Your task to perform on an android device: Turn off the flashlight Image 0: 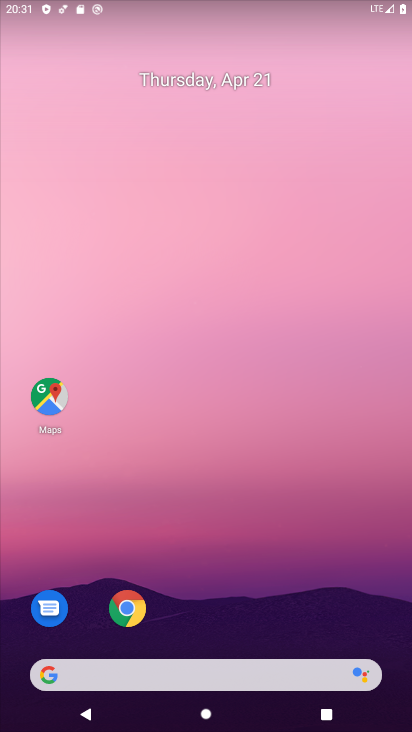
Step 0: drag from (235, 636) to (232, 288)
Your task to perform on an android device: Turn off the flashlight Image 1: 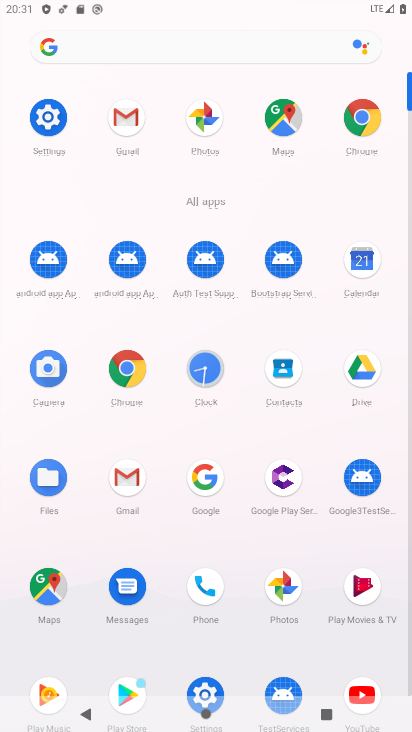
Step 1: click (233, 282)
Your task to perform on an android device: Turn off the flashlight Image 2: 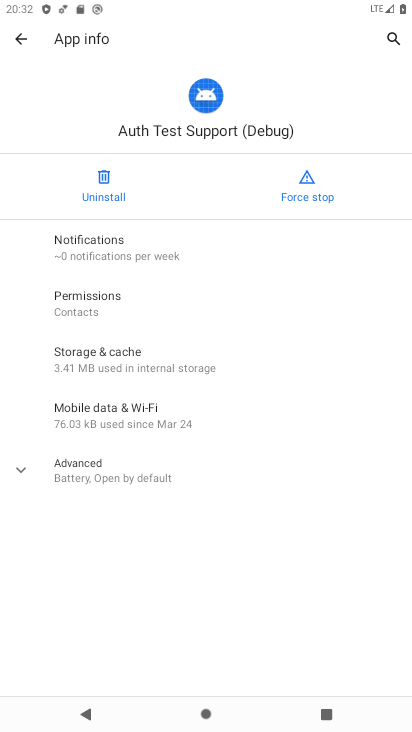
Step 2: click (26, 40)
Your task to perform on an android device: Turn off the flashlight Image 3: 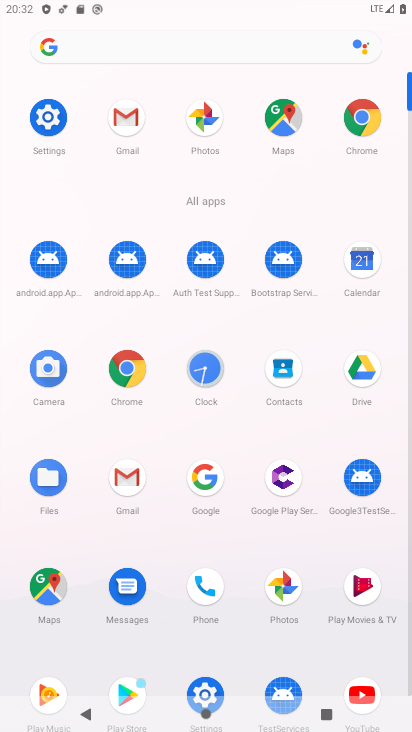
Step 3: click (61, 119)
Your task to perform on an android device: Turn off the flashlight Image 4: 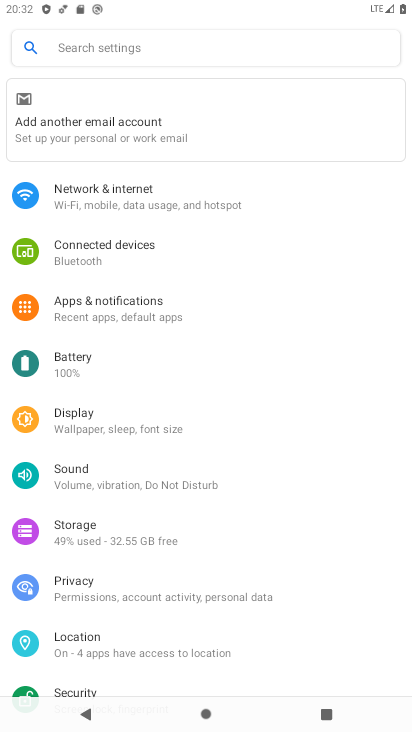
Step 4: click (99, 430)
Your task to perform on an android device: Turn off the flashlight Image 5: 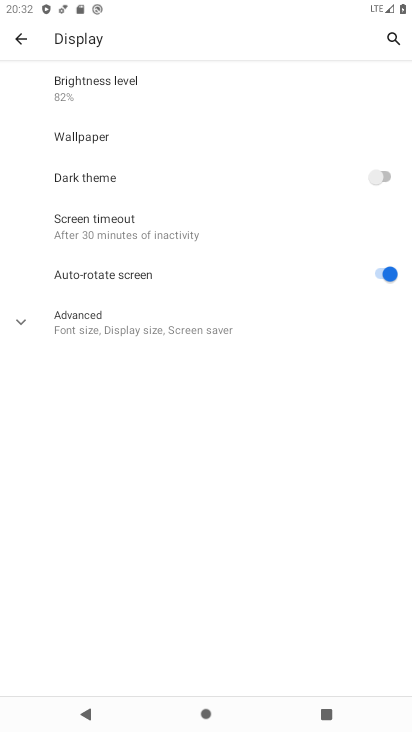
Step 5: click (133, 335)
Your task to perform on an android device: Turn off the flashlight Image 6: 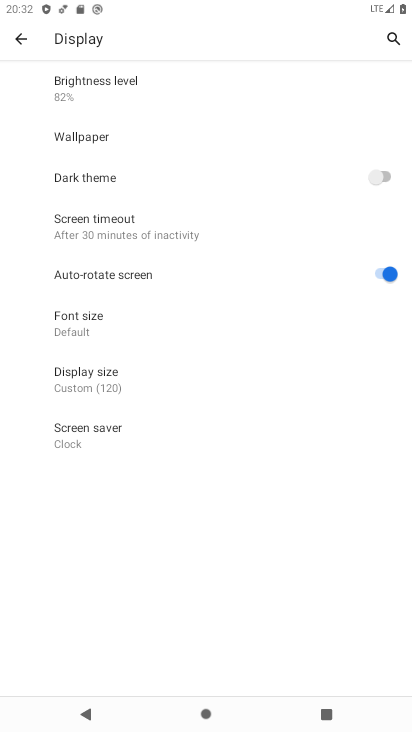
Step 6: task complete